Your task to perform on an android device: Search for Italian restaurants on Maps Image 0: 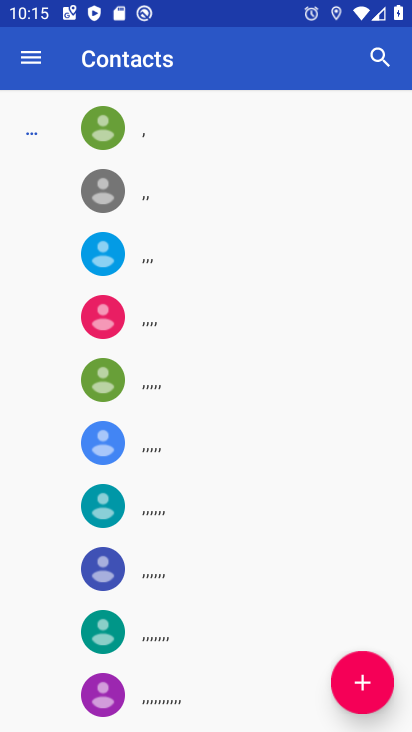
Step 0: press home button
Your task to perform on an android device: Search for Italian restaurants on Maps Image 1: 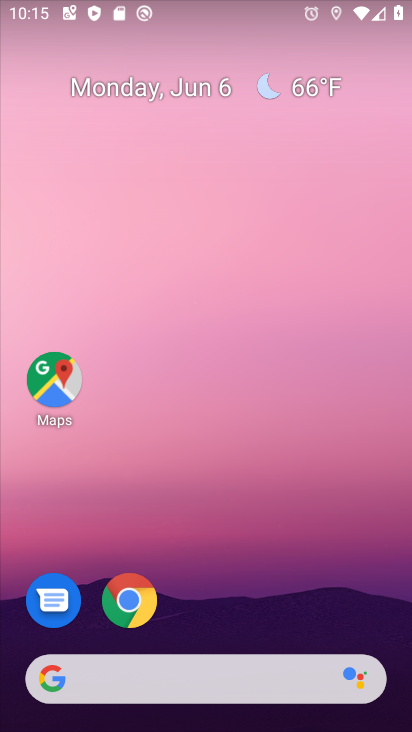
Step 1: drag from (46, 590) to (239, 170)
Your task to perform on an android device: Search for Italian restaurants on Maps Image 2: 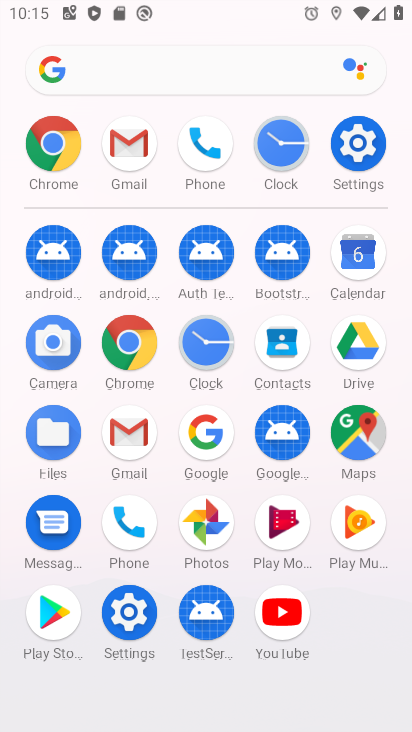
Step 2: click (357, 433)
Your task to perform on an android device: Search for Italian restaurants on Maps Image 3: 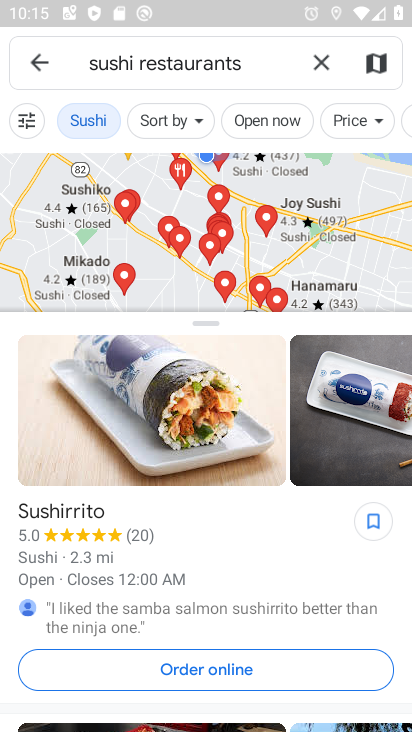
Step 3: click (321, 56)
Your task to perform on an android device: Search for Italian restaurants on Maps Image 4: 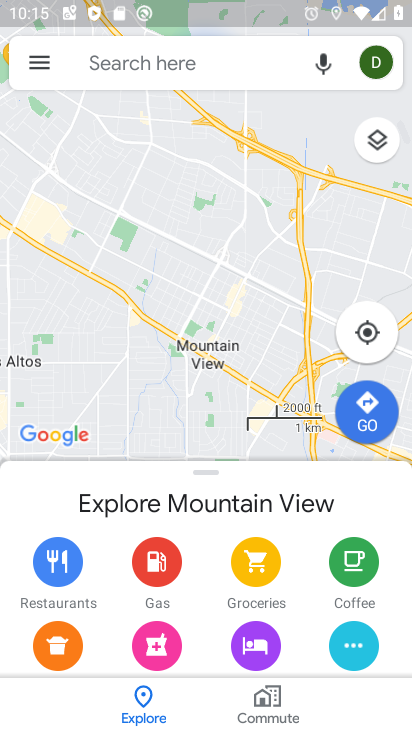
Step 4: click (187, 64)
Your task to perform on an android device: Search for Italian restaurants on Maps Image 5: 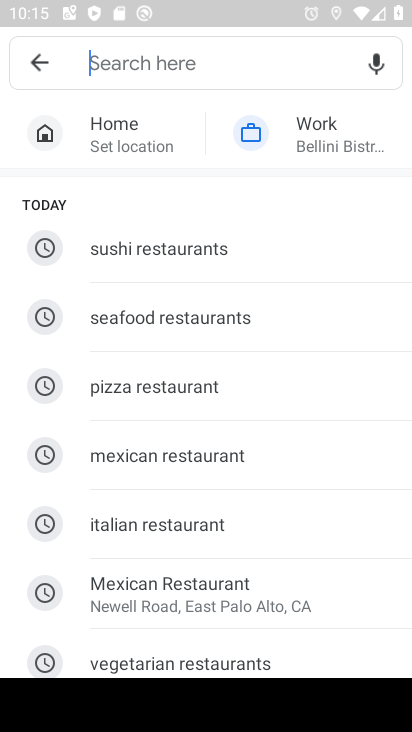
Step 5: click (164, 525)
Your task to perform on an android device: Search for Italian restaurants on Maps Image 6: 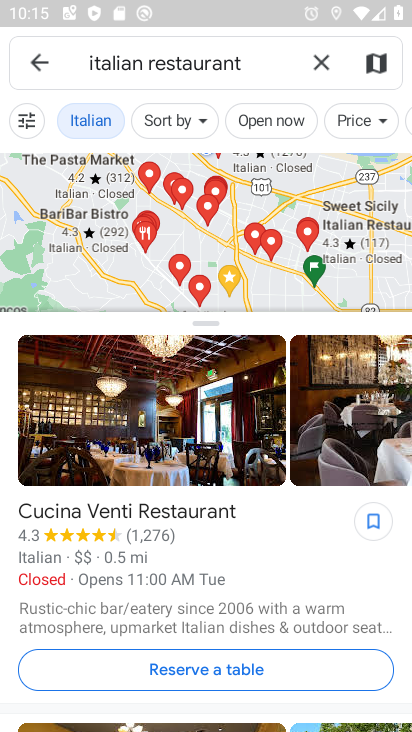
Step 6: task complete